Your task to perform on an android device: change keyboard looks Image 0: 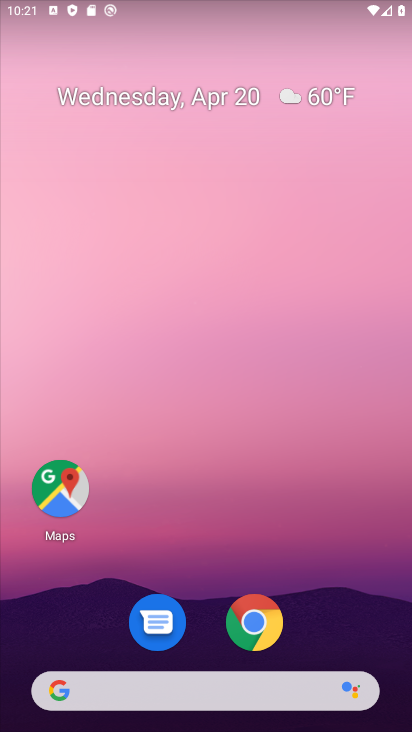
Step 0: drag from (287, 605) to (359, 76)
Your task to perform on an android device: change keyboard looks Image 1: 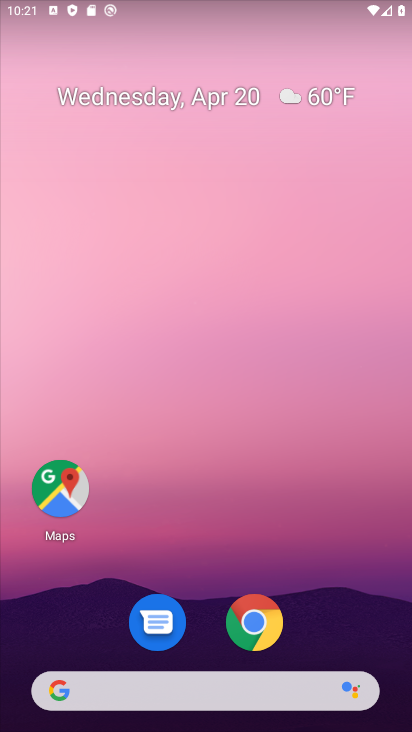
Step 1: drag from (324, 530) to (308, 98)
Your task to perform on an android device: change keyboard looks Image 2: 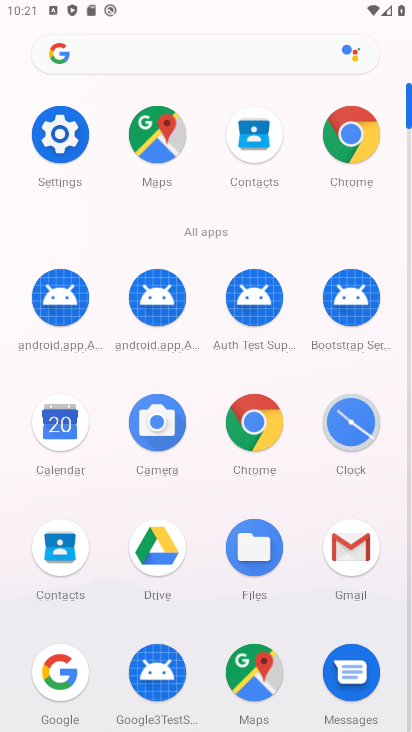
Step 2: click (71, 137)
Your task to perform on an android device: change keyboard looks Image 3: 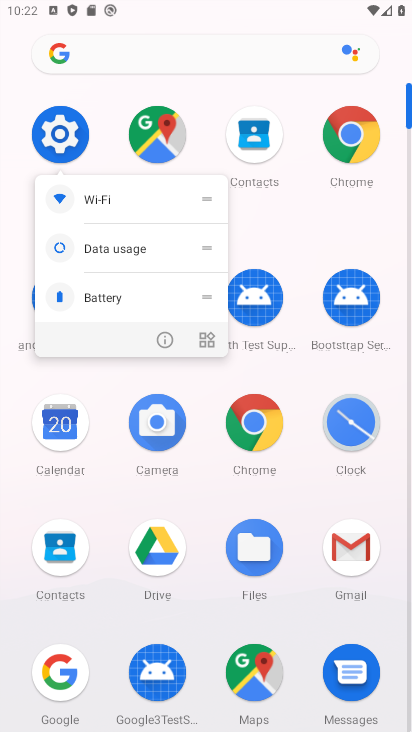
Step 3: click (71, 137)
Your task to perform on an android device: change keyboard looks Image 4: 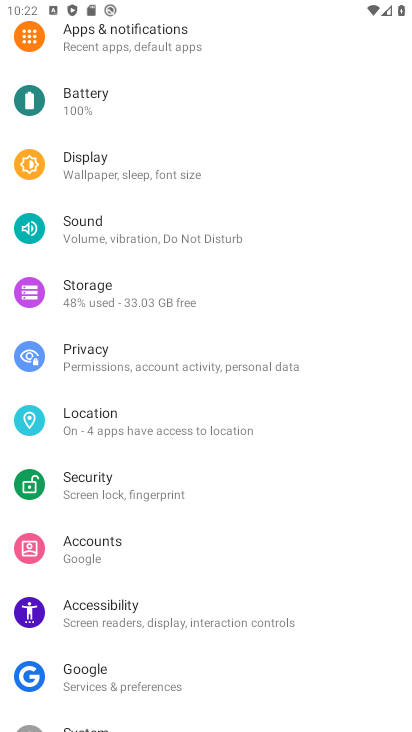
Step 4: drag from (126, 545) to (45, 98)
Your task to perform on an android device: change keyboard looks Image 5: 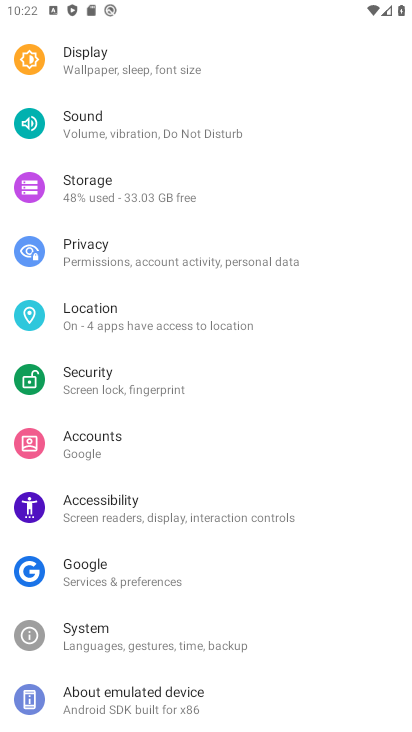
Step 5: drag from (146, 644) to (92, 320)
Your task to perform on an android device: change keyboard looks Image 6: 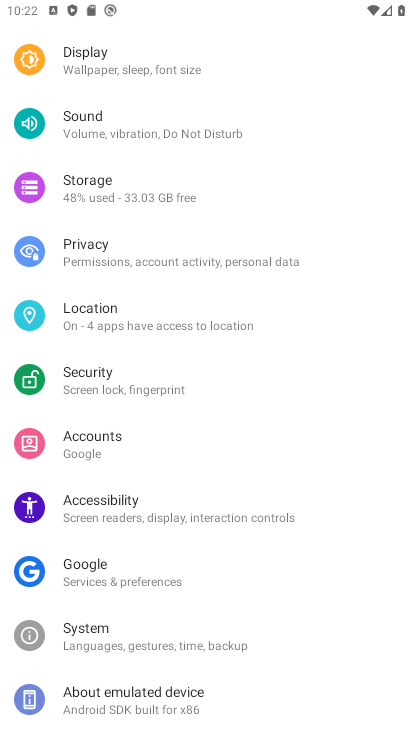
Step 6: click (124, 639)
Your task to perform on an android device: change keyboard looks Image 7: 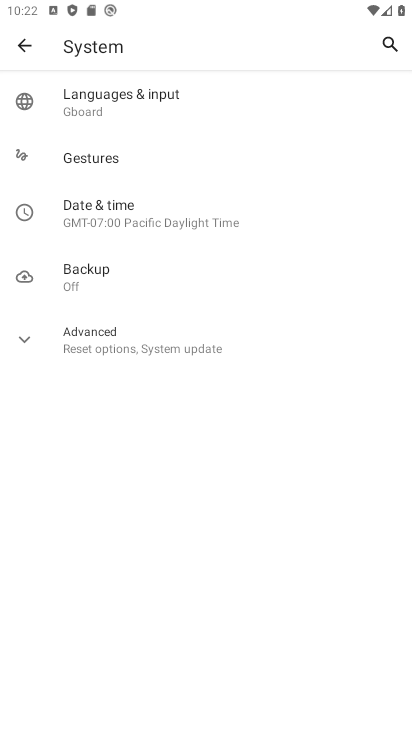
Step 7: click (127, 108)
Your task to perform on an android device: change keyboard looks Image 8: 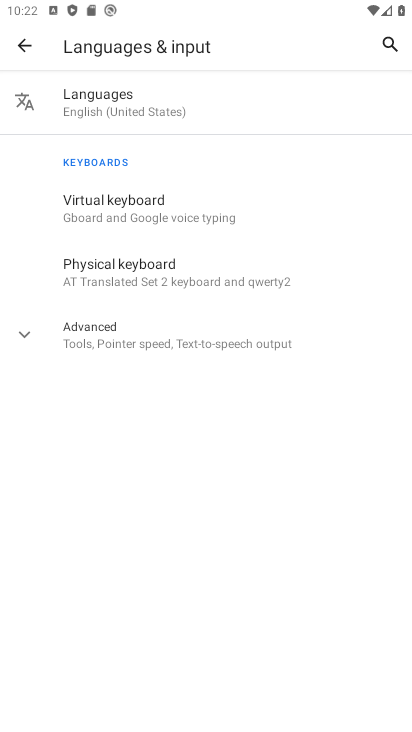
Step 8: click (101, 198)
Your task to perform on an android device: change keyboard looks Image 9: 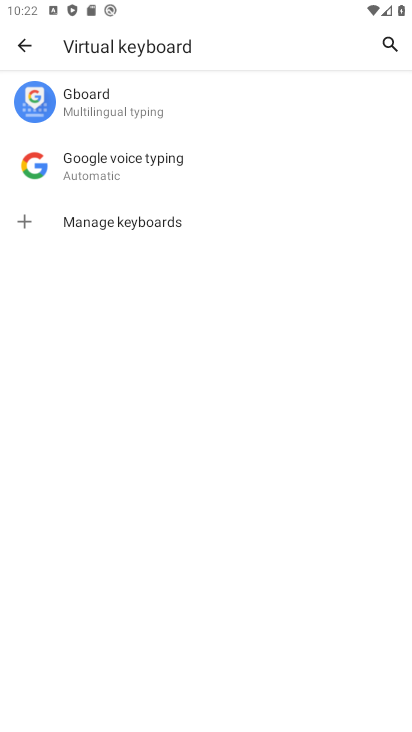
Step 9: click (94, 109)
Your task to perform on an android device: change keyboard looks Image 10: 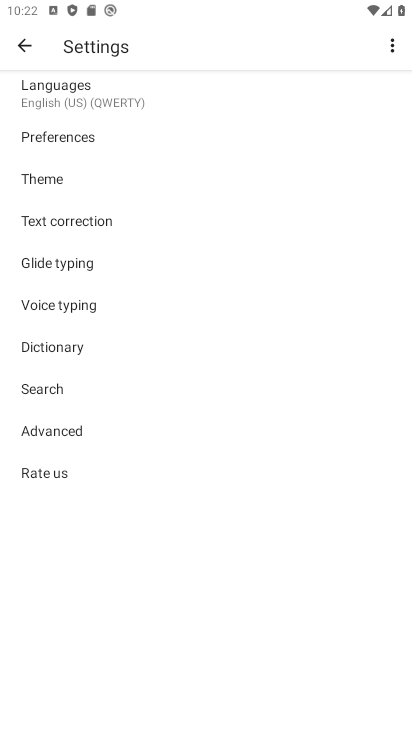
Step 10: click (40, 189)
Your task to perform on an android device: change keyboard looks Image 11: 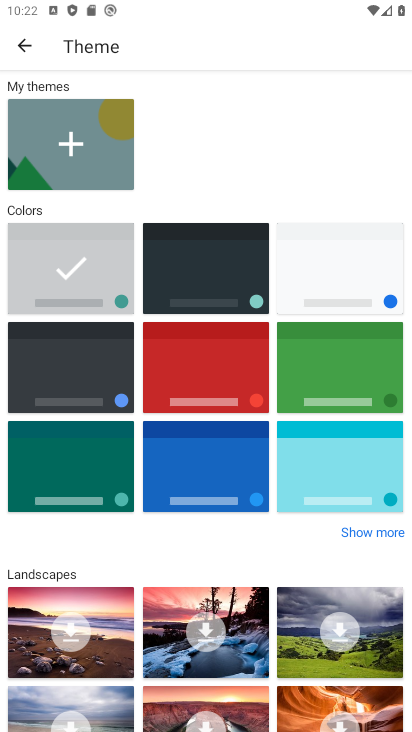
Step 11: click (198, 267)
Your task to perform on an android device: change keyboard looks Image 12: 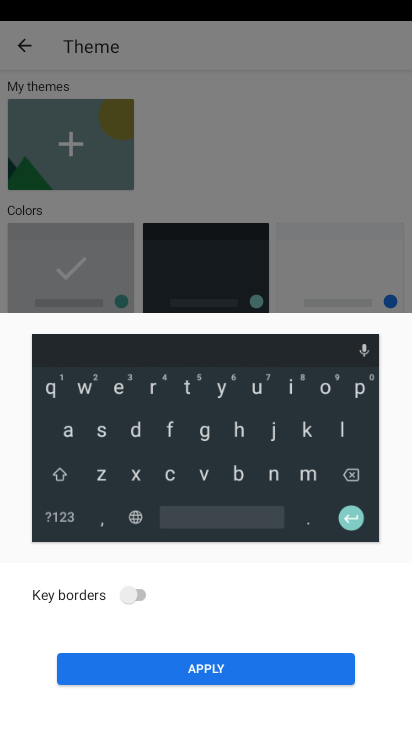
Step 12: click (226, 668)
Your task to perform on an android device: change keyboard looks Image 13: 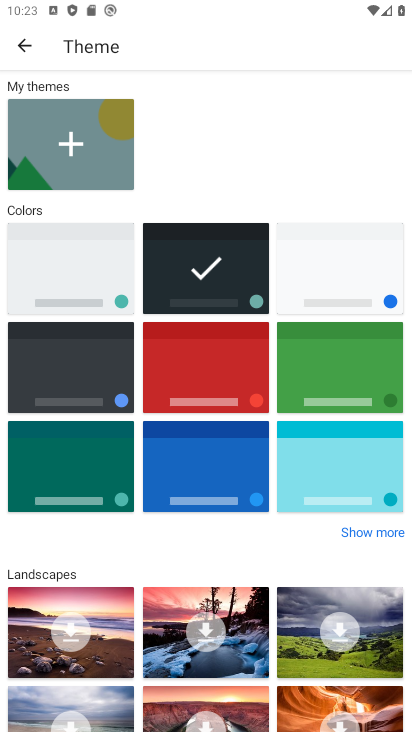
Step 13: task complete